Your task to perform on an android device: toggle notification dots Image 0: 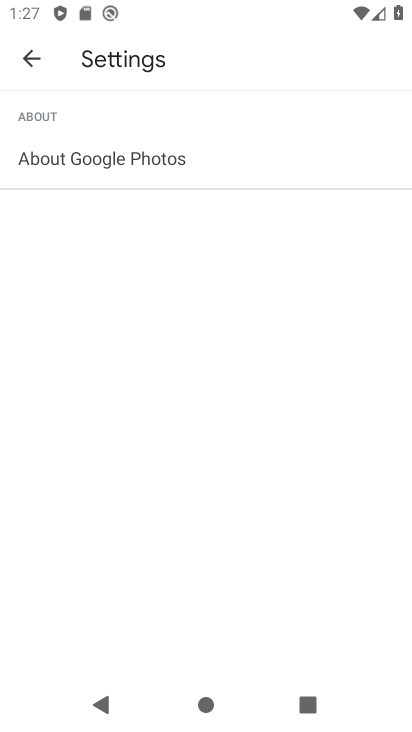
Step 0: press home button
Your task to perform on an android device: toggle notification dots Image 1: 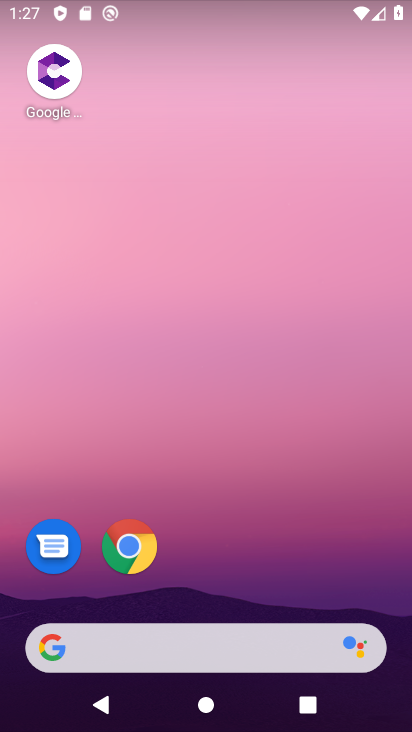
Step 1: drag from (162, 627) to (253, 149)
Your task to perform on an android device: toggle notification dots Image 2: 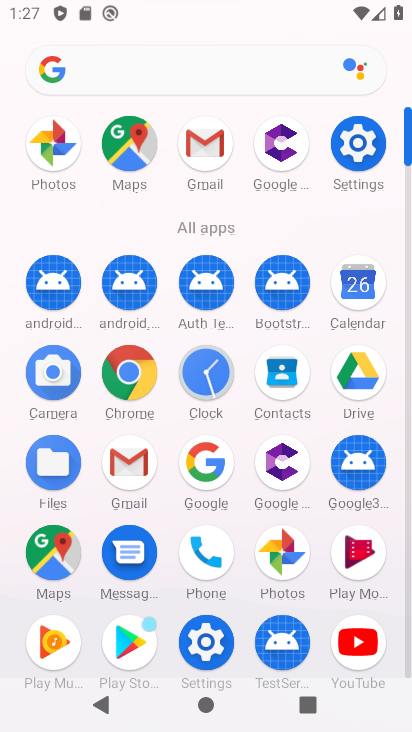
Step 2: drag from (205, 631) to (256, 408)
Your task to perform on an android device: toggle notification dots Image 3: 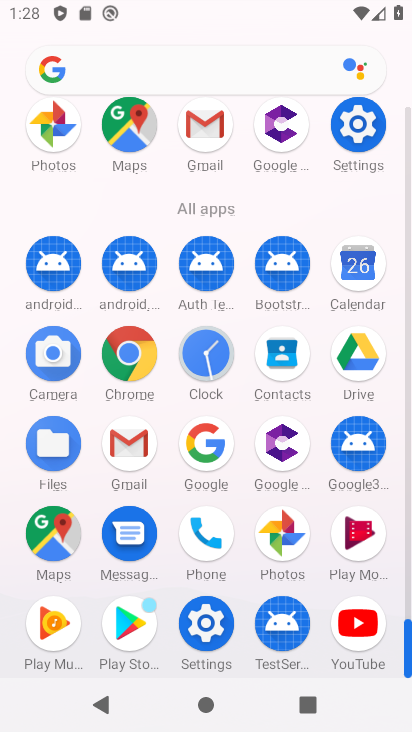
Step 3: click (201, 636)
Your task to perform on an android device: toggle notification dots Image 4: 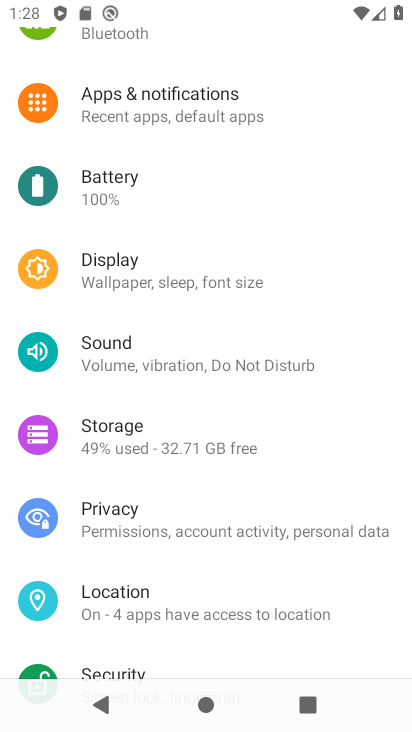
Step 4: click (252, 118)
Your task to perform on an android device: toggle notification dots Image 5: 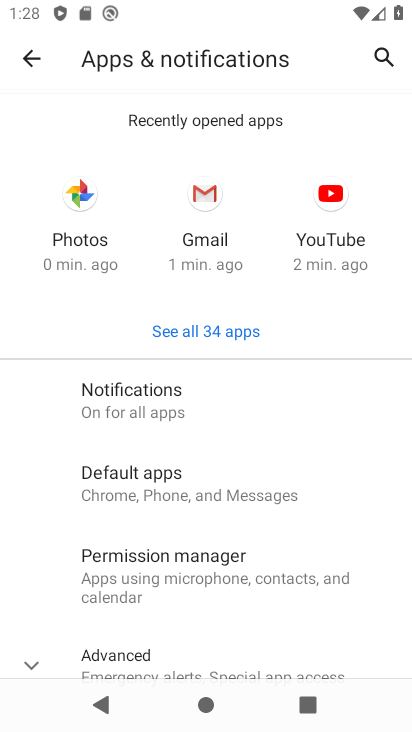
Step 5: click (231, 402)
Your task to perform on an android device: toggle notification dots Image 6: 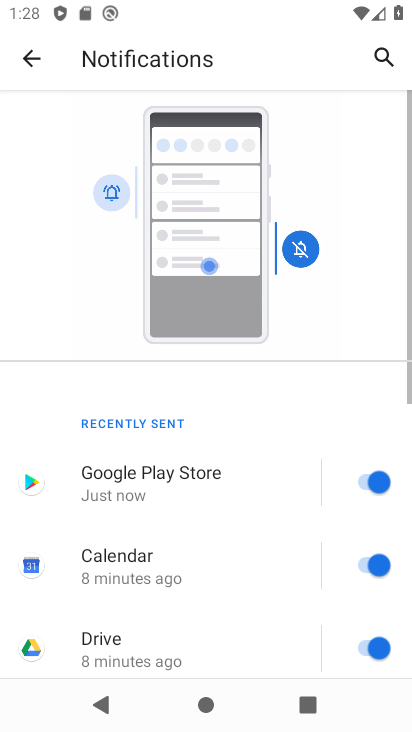
Step 6: drag from (223, 662) to (368, 230)
Your task to perform on an android device: toggle notification dots Image 7: 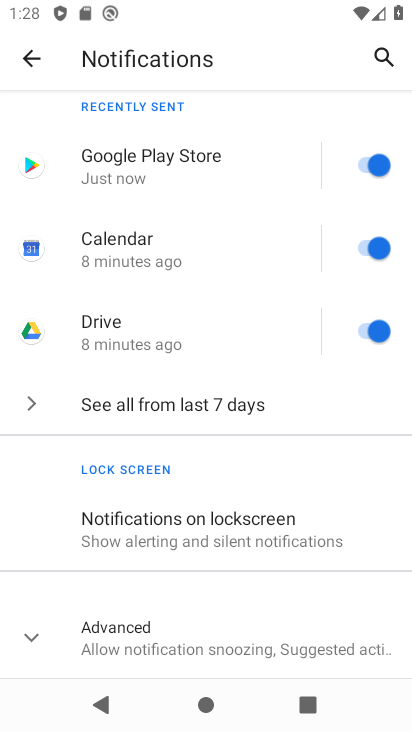
Step 7: drag from (228, 610) to (297, 292)
Your task to perform on an android device: toggle notification dots Image 8: 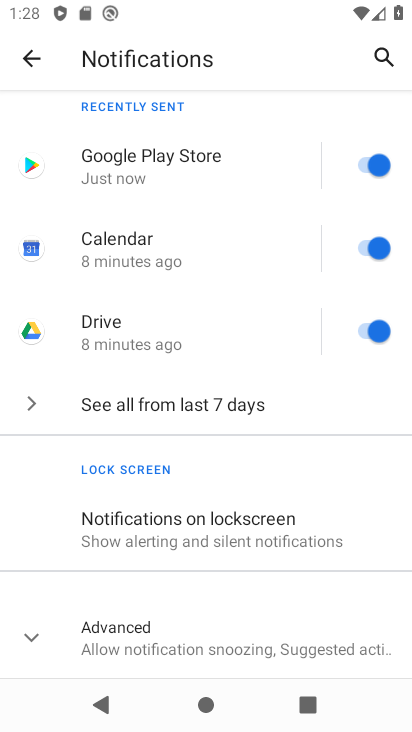
Step 8: click (183, 643)
Your task to perform on an android device: toggle notification dots Image 9: 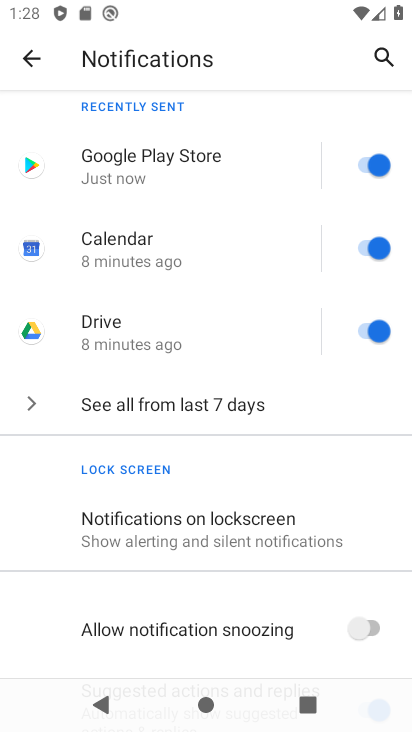
Step 9: drag from (152, 688) to (262, 310)
Your task to perform on an android device: toggle notification dots Image 10: 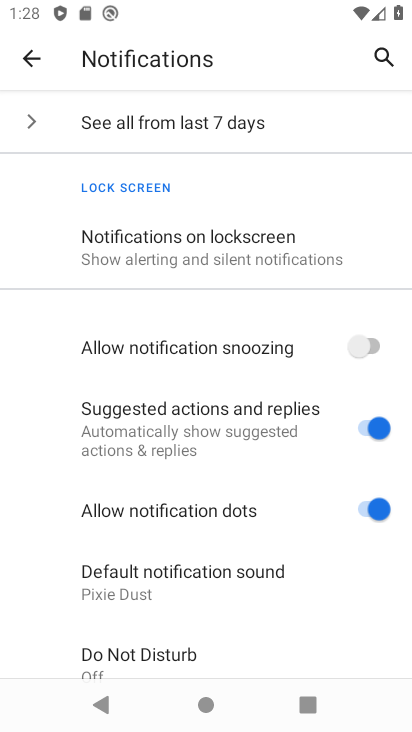
Step 10: drag from (242, 626) to (310, 360)
Your task to perform on an android device: toggle notification dots Image 11: 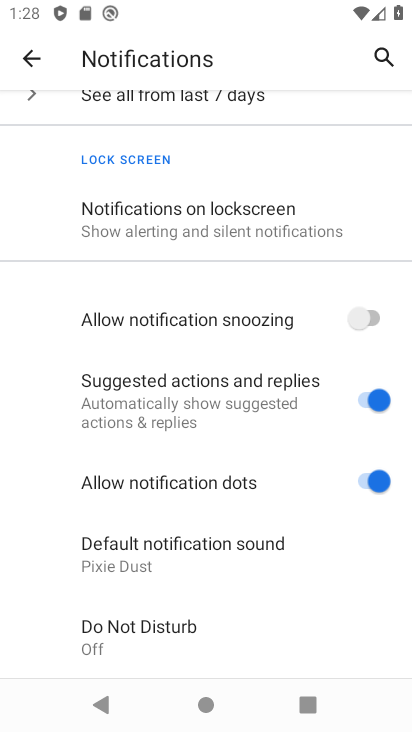
Step 11: click (363, 483)
Your task to perform on an android device: toggle notification dots Image 12: 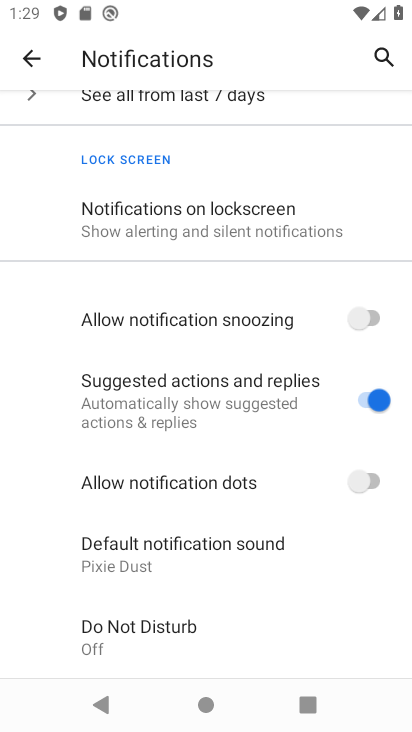
Step 12: task complete